Your task to perform on an android device: manage bookmarks in the chrome app Image 0: 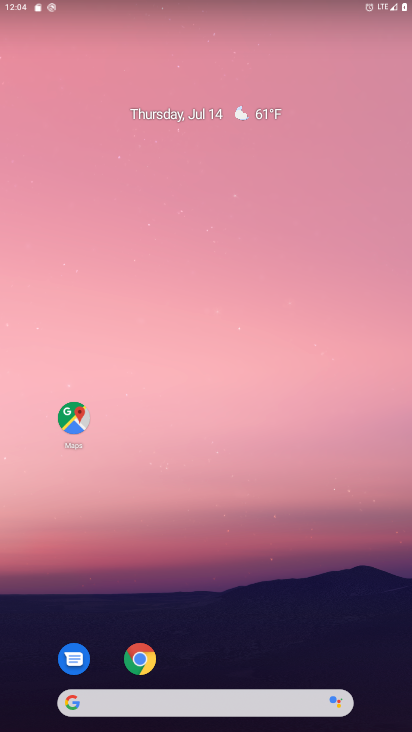
Step 0: click (139, 652)
Your task to perform on an android device: manage bookmarks in the chrome app Image 1: 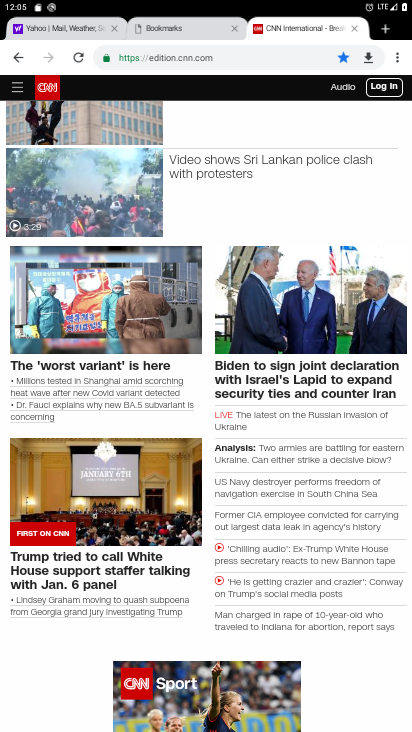
Step 1: click (355, 25)
Your task to perform on an android device: manage bookmarks in the chrome app Image 2: 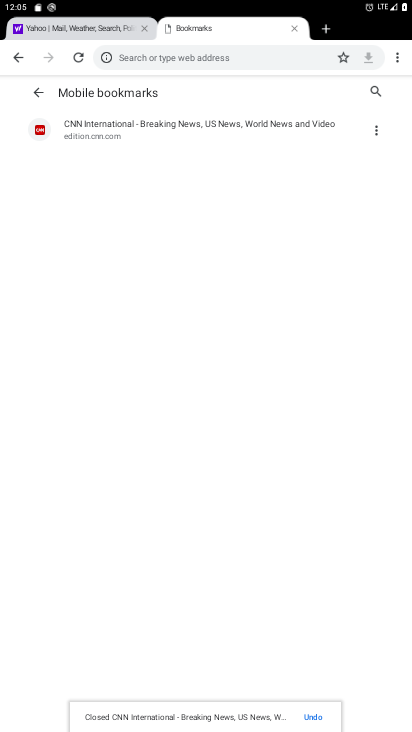
Step 2: click (293, 25)
Your task to perform on an android device: manage bookmarks in the chrome app Image 3: 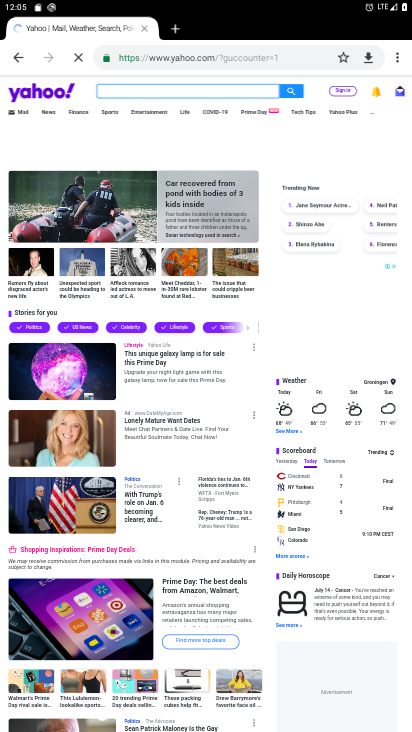
Step 3: click (397, 54)
Your task to perform on an android device: manage bookmarks in the chrome app Image 4: 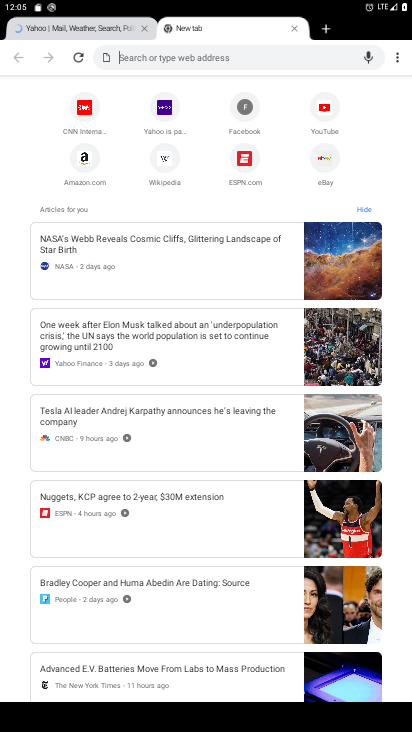
Step 4: click (402, 54)
Your task to perform on an android device: manage bookmarks in the chrome app Image 5: 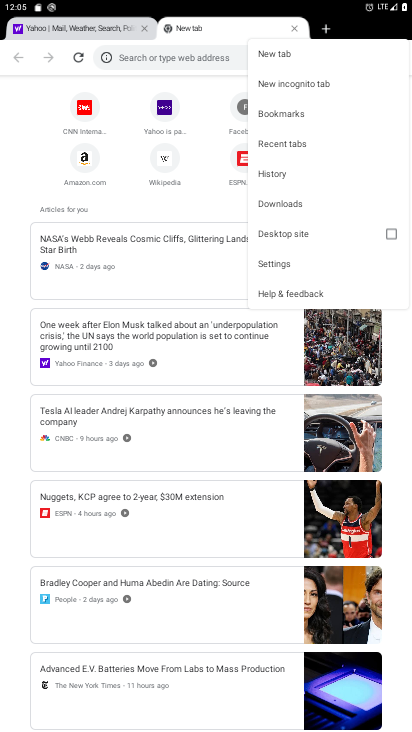
Step 5: click (306, 108)
Your task to perform on an android device: manage bookmarks in the chrome app Image 6: 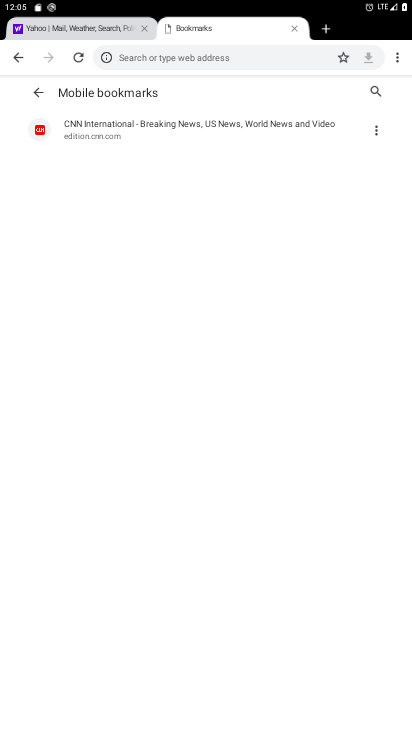
Step 6: task complete